Your task to perform on an android device: Go to Wikipedia Image 0: 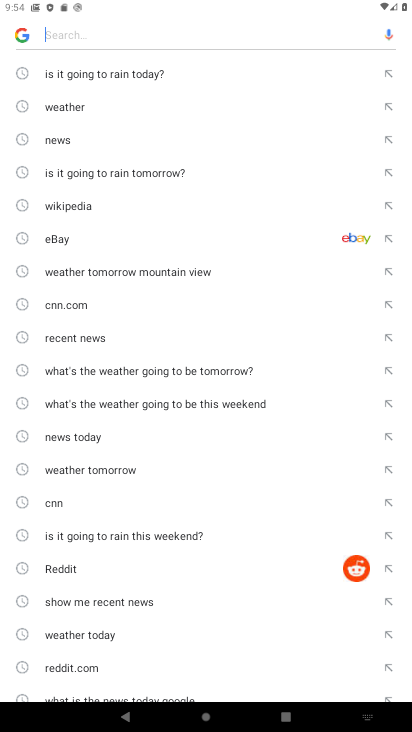
Step 0: click (94, 44)
Your task to perform on an android device: Go to Wikipedia Image 1: 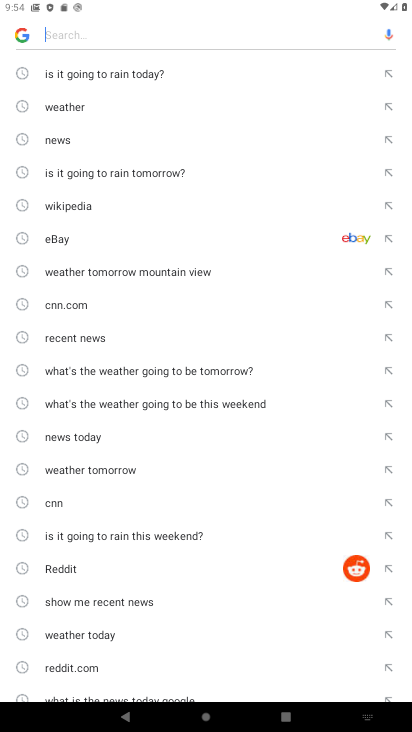
Step 1: type "wikipedia"
Your task to perform on an android device: Go to Wikipedia Image 2: 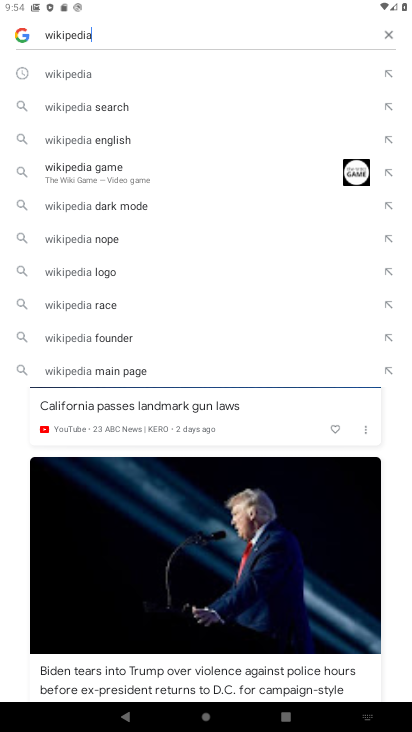
Step 2: click (79, 77)
Your task to perform on an android device: Go to Wikipedia Image 3: 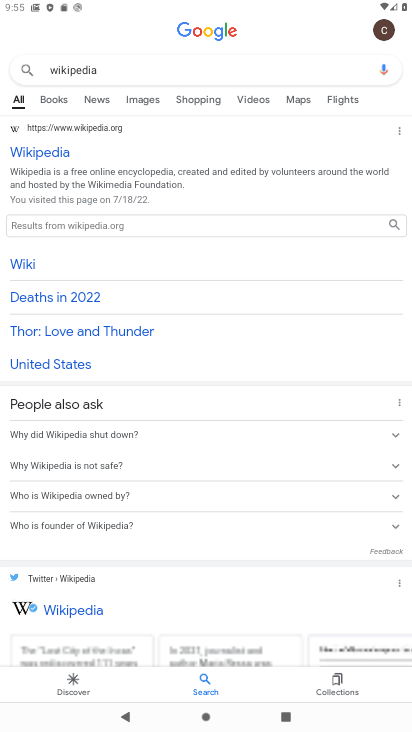
Step 3: click (48, 154)
Your task to perform on an android device: Go to Wikipedia Image 4: 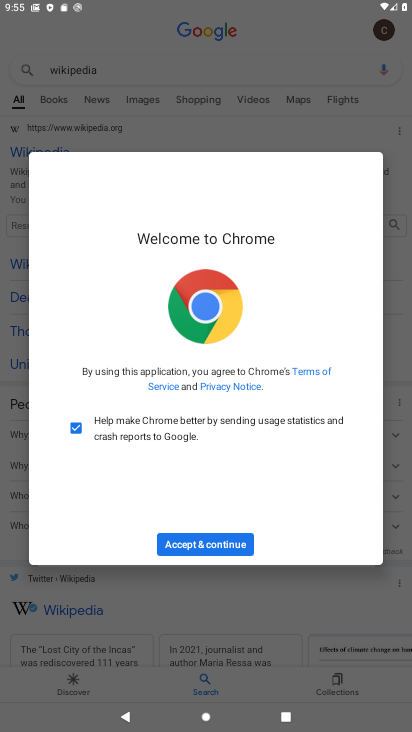
Step 4: click (234, 547)
Your task to perform on an android device: Go to Wikipedia Image 5: 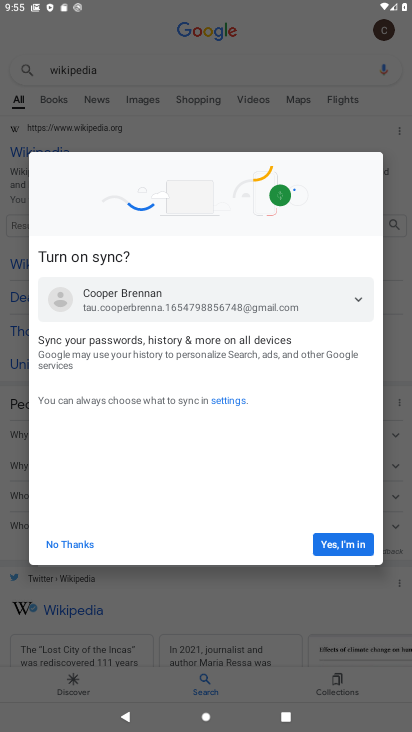
Step 5: click (64, 545)
Your task to perform on an android device: Go to Wikipedia Image 6: 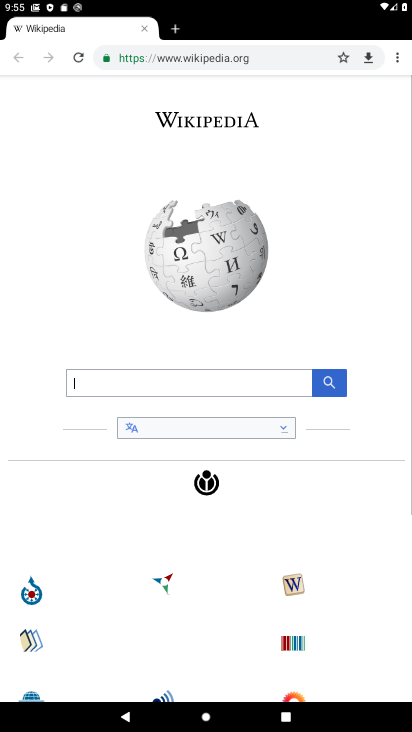
Step 6: task complete